Your task to perform on an android device: open a bookmark in the chrome app Image 0: 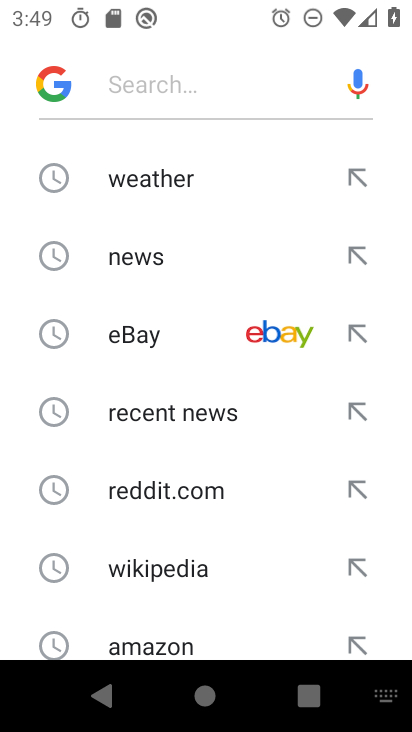
Step 0: press back button
Your task to perform on an android device: open a bookmark in the chrome app Image 1: 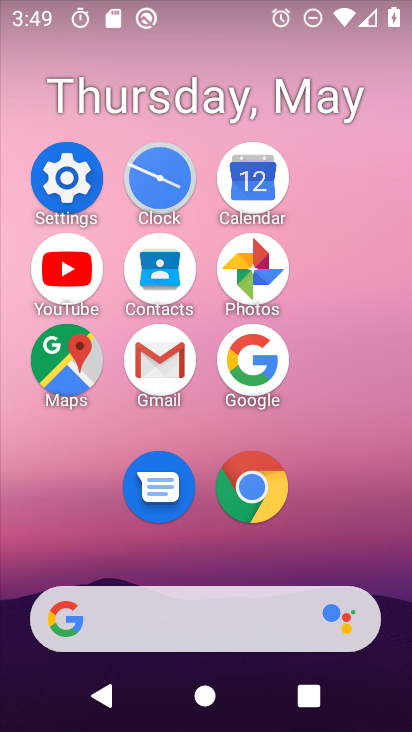
Step 1: click (255, 485)
Your task to perform on an android device: open a bookmark in the chrome app Image 2: 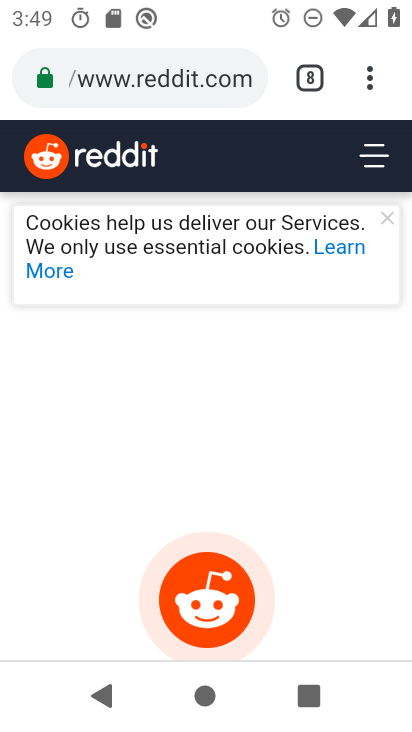
Step 2: click (363, 92)
Your task to perform on an android device: open a bookmark in the chrome app Image 3: 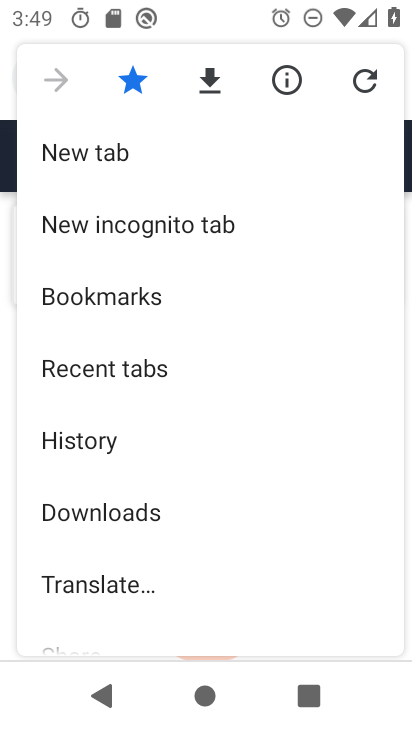
Step 3: click (159, 288)
Your task to perform on an android device: open a bookmark in the chrome app Image 4: 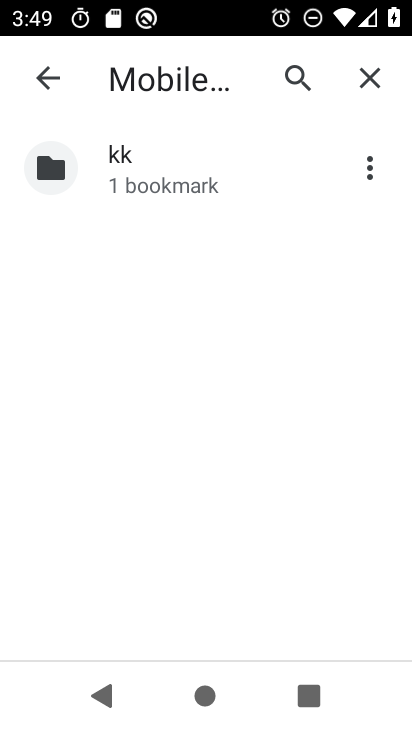
Step 4: task complete